Your task to perform on an android device: open app "Facebook Messenger" (install if not already installed) and go to login screen Image 0: 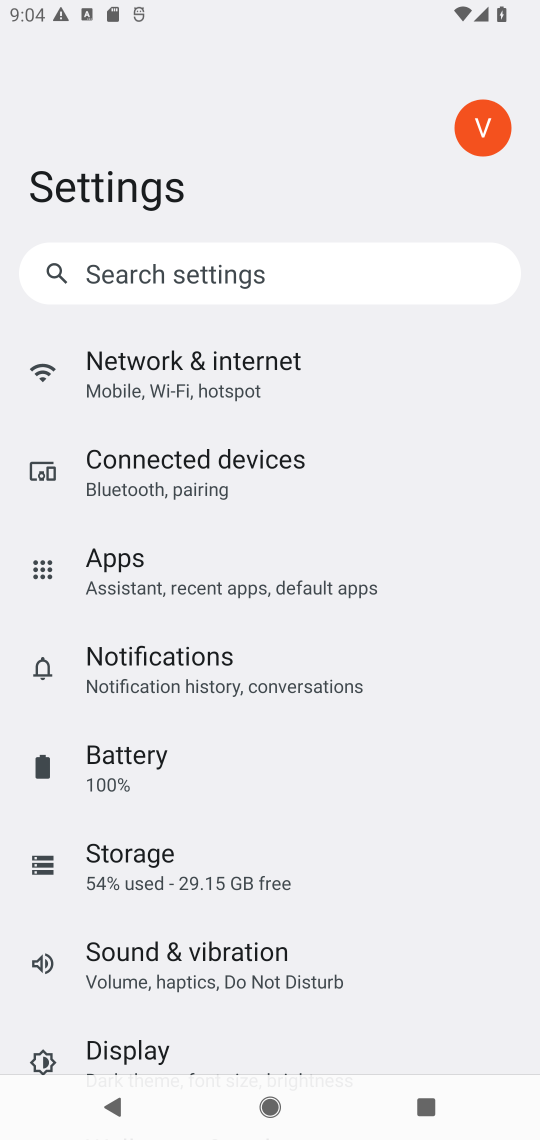
Step 0: press home button
Your task to perform on an android device: open app "Facebook Messenger" (install if not already installed) and go to login screen Image 1: 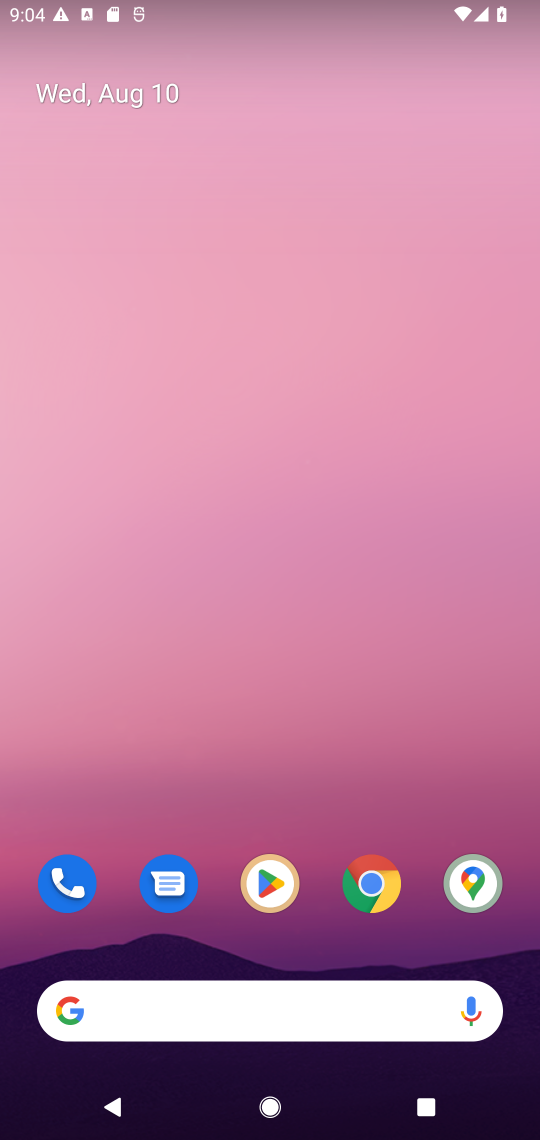
Step 1: drag from (315, 364) to (315, 122)
Your task to perform on an android device: open app "Facebook Messenger" (install if not already installed) and go to login screen Image 2: 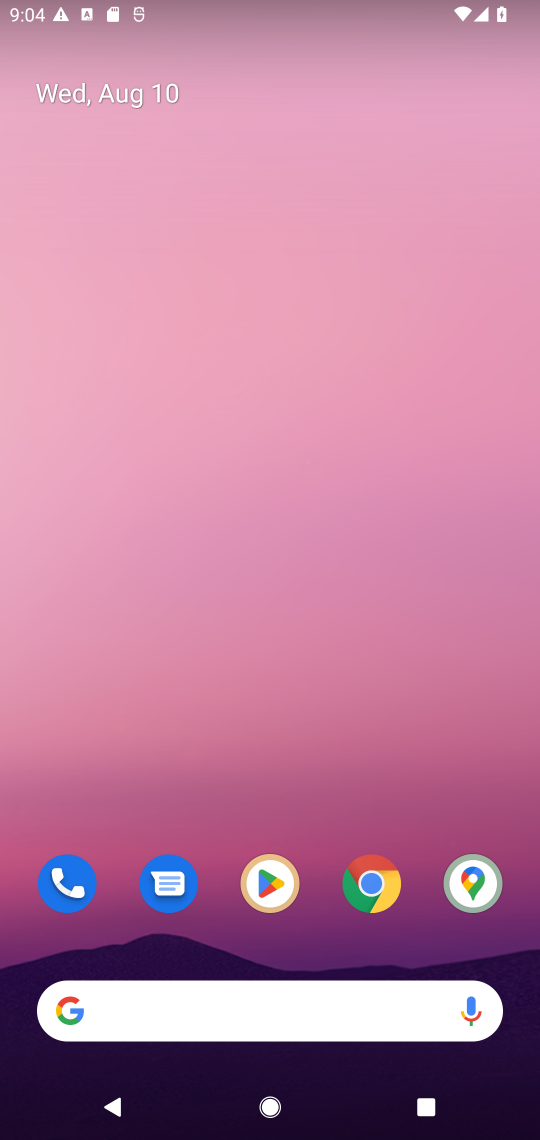
Step 2: click (274, 885)
Your task to perform on an android device: open app "Facebook Messenger" (install if not already installed) and go to login screen Image 3: 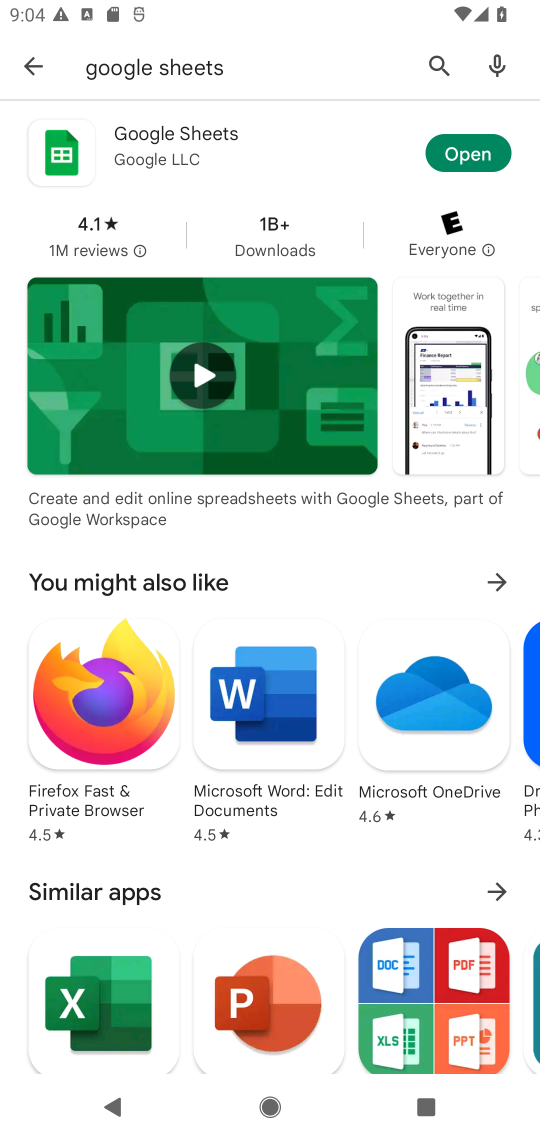
Step 3: click (437, 62)
Your task to perform on an android device: open app "Facebook Messenger" (install if not already installed) and go to login screen Image 4: 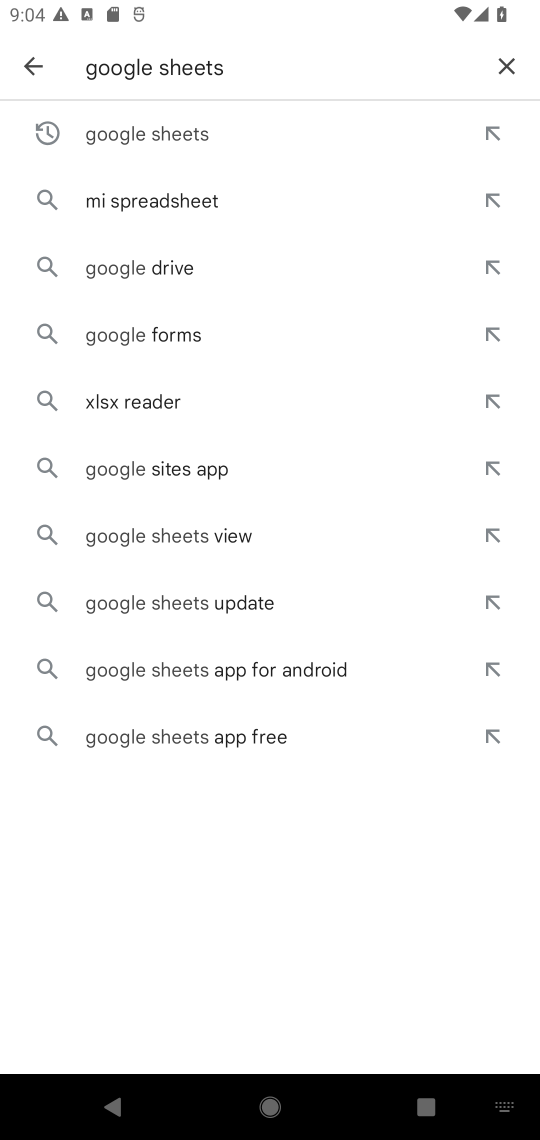
Step 4: click (498, 61)
Your task to perform on an android device: open app "Facebook Messenger" (install if not already installed) and go to login screen Image 5: 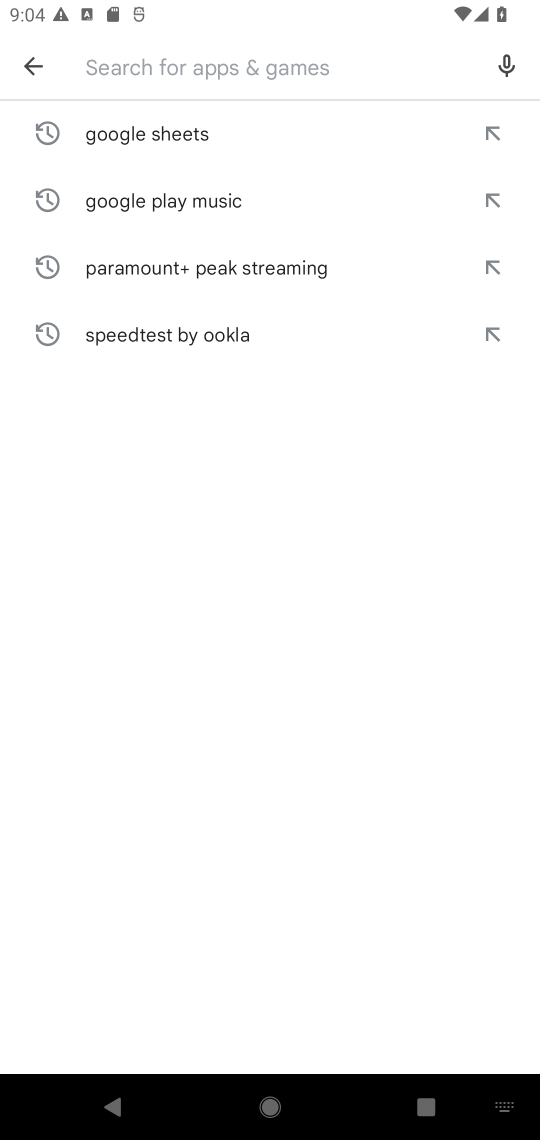
Step 5: type "Facebook Messenge"
Your task to perform on an android device: open app "Facebook Messenger" (install if not already installed) and go to login screen Image 6: 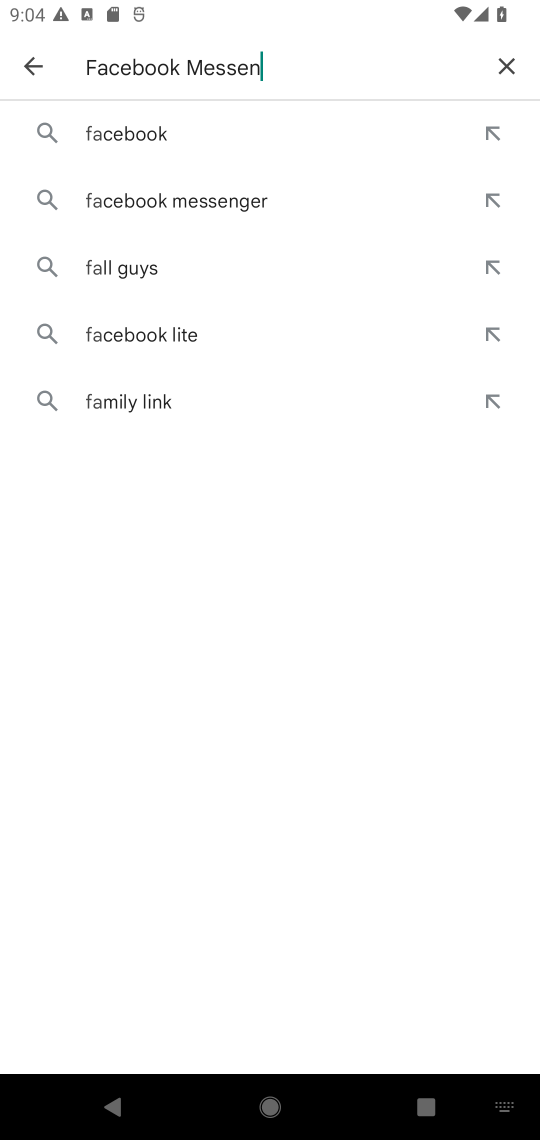
Step 6: type ""
Your task to perform on an android device: open app "Facebook Messenger" (install if not already installed) and go to login screen Image 7: 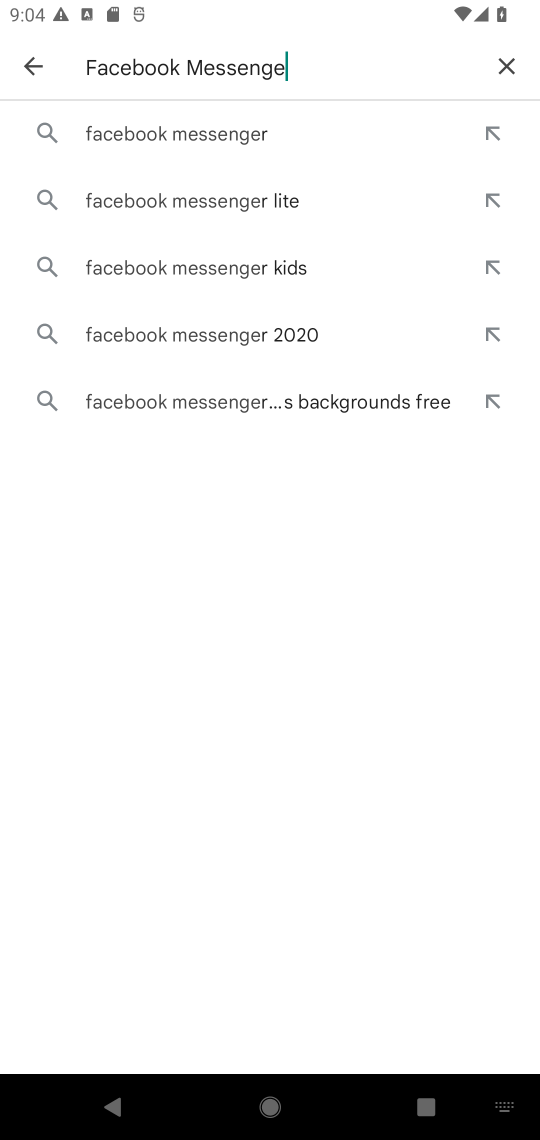
Step 7: click (224, 134)
Your task to perform on an android device: open app "Facebook Messenger" (install if not already installed) and go to login screen Image 8: 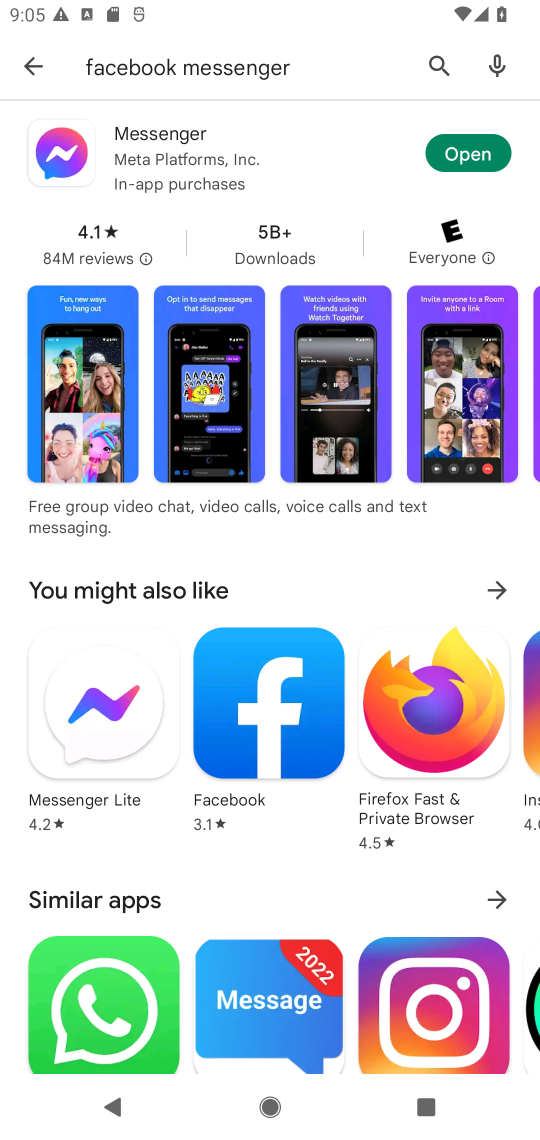
Step 8: click (469, 161)
Your task to perform on an android device: open app "Facebook Messenger" (install if not already installed) and go to login screen Image 9: 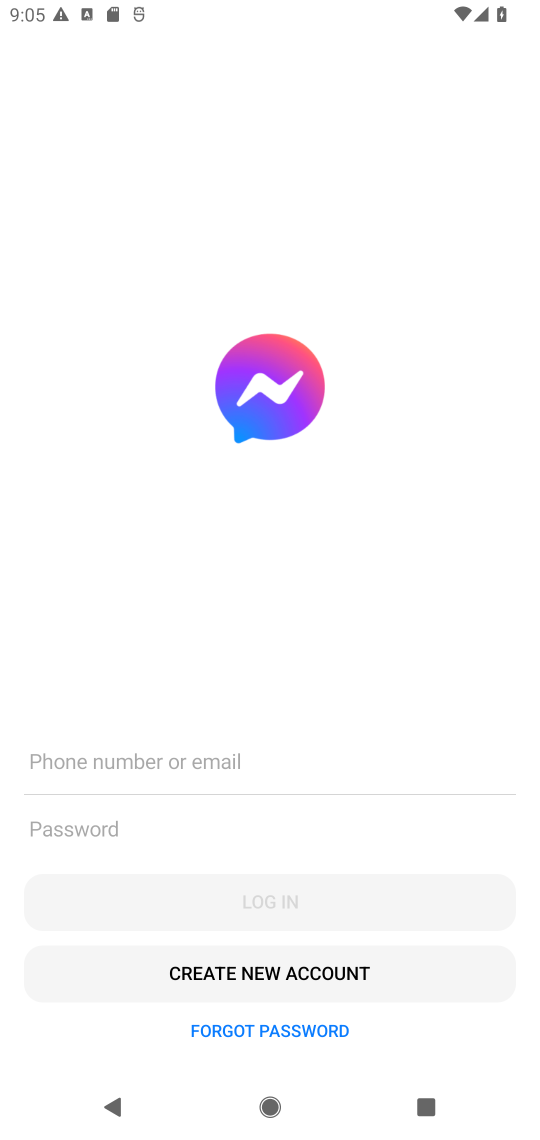
Step 9: task complete